Your task to perform on an android device: toggle improve location accuracy Image 0: 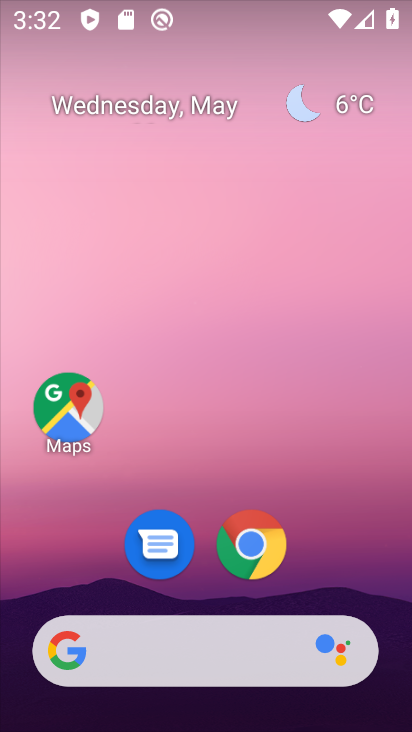
Step 0: drag from (54, 607) to (315, 92)
Your task to perform on an android device: toggle improve location accuracy Image 1: 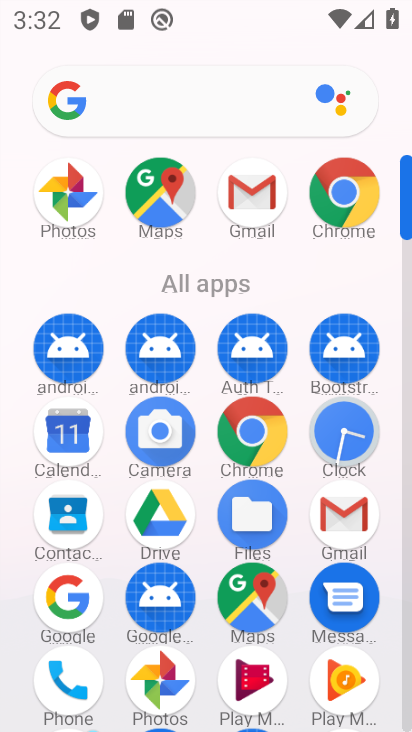
Step 1: drag from (136, 644) to (372, 132)
Your task to perform on an android device: toggle improve location accuracy Image 2: 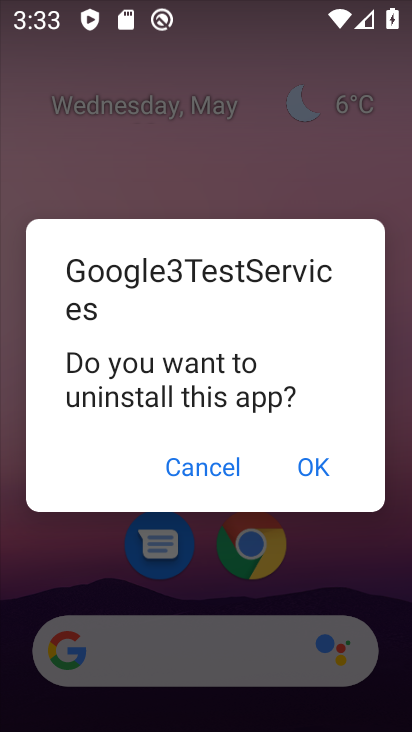
Step 2: click (191, 464)
Your task to perform on an android device: toggle improve location accuracy Image 3: 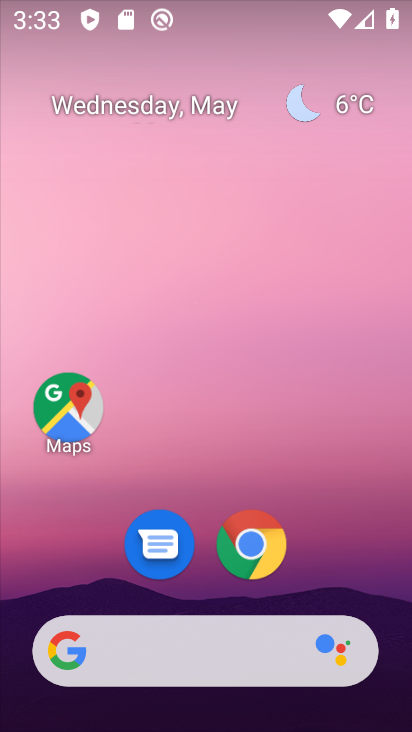
Step 3: drag from (15, 674) to (406, 104)
Your task to perform on an android device: toggle improve location accuracy Image 4: 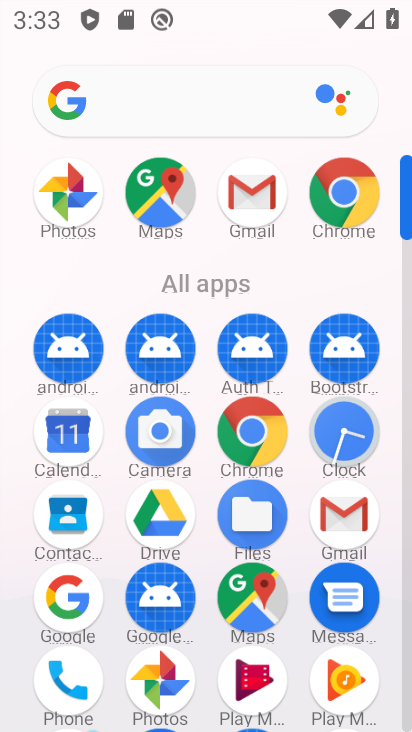
Step 4: drag from (166, 648) to (389, 234)
Your task to perform on an android device: toggle improve location accuracy Image 5: 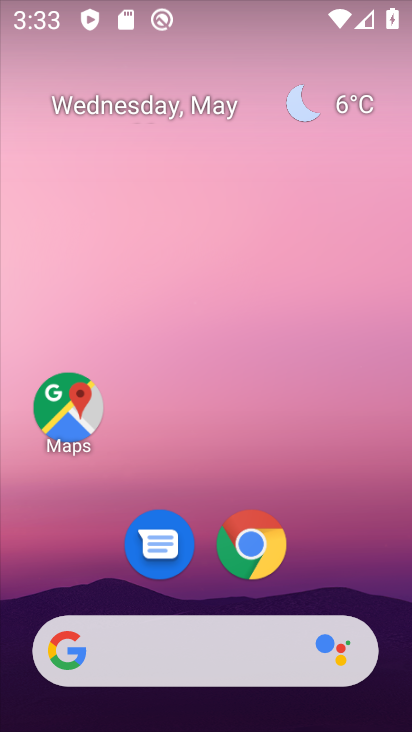
Step 5: drag from (90, 565) to (405, 323)
Your task to perform on an android device: toggle improve location accuracy Image 6: 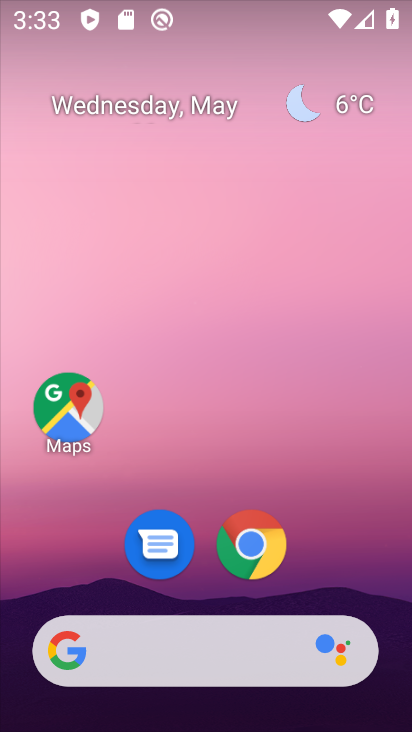
Step 6: drag from (56, 551) to (309, 185)
Your task to perform on an android device: toggle improve location accuracy Image 7: 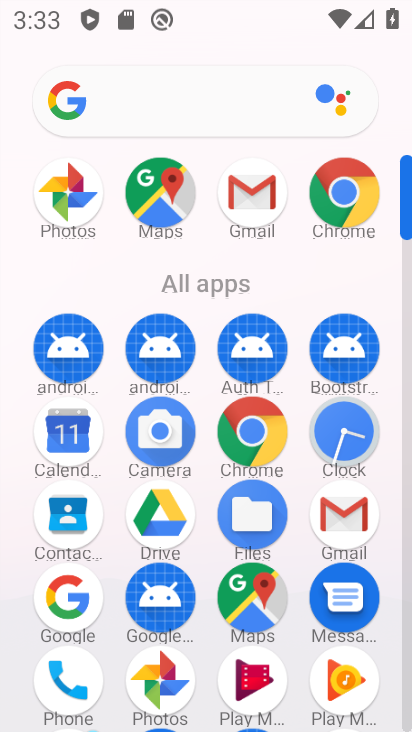
Step 7: drag from (82, 646) to (407, 305)
Your task to perform on an android device: toggle improve location accuracy Image 8: 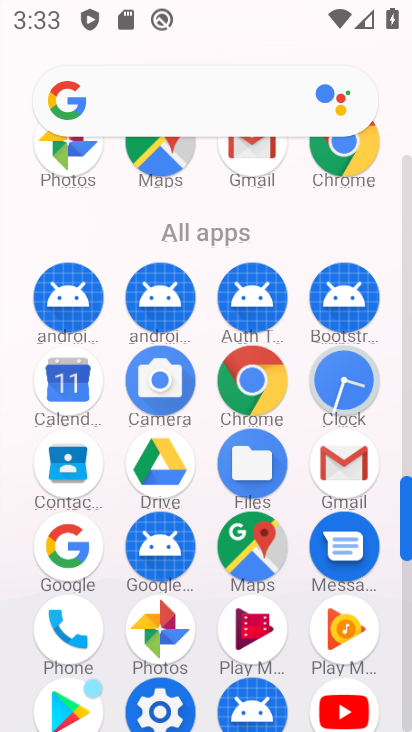
Step 8: click (160, 717)
Your task to perform on an android device: toggle improve location accuracy Image 9: 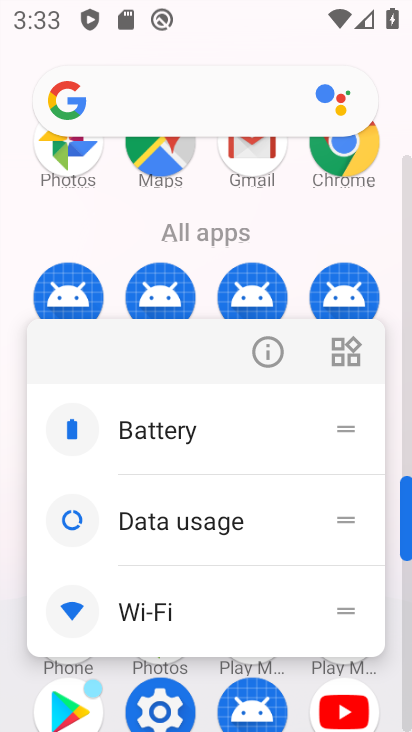
Step 9: click (189, 704)
Your task to perform on an android device: toggle improve location accuracy Image 10: 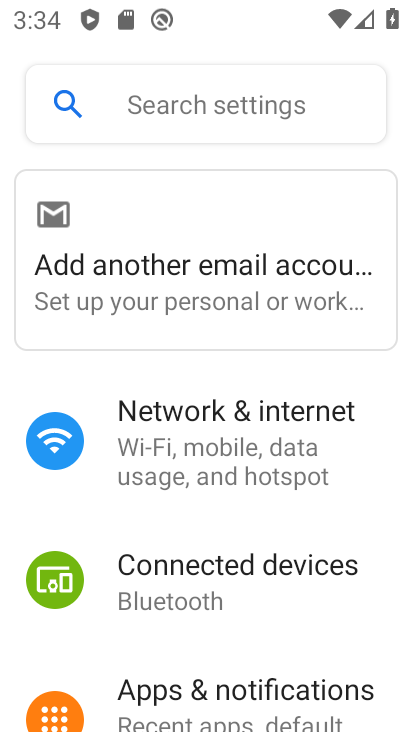
Step 10: drag from (148, 683) to (323, 203)
Your task to perform on an android device: toggle improve location accuracy Image 11: 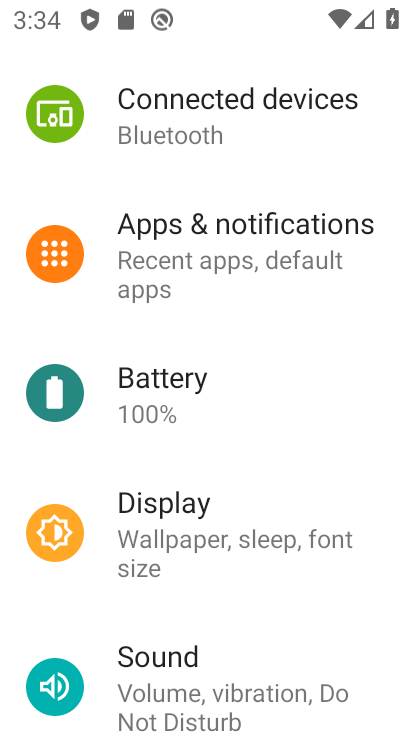
Step 11: drag from (131, 697) to (296, 208)
Your task to perform on an android device: toggle improve location accuracy Image 12: 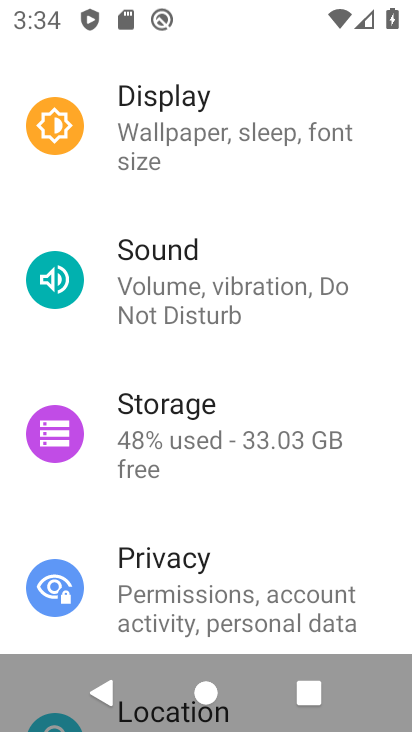
Step 12: drag from (170, 608) to (322, 247)
Your task to perform on an android device: toggle improve location accuracy Image 13: 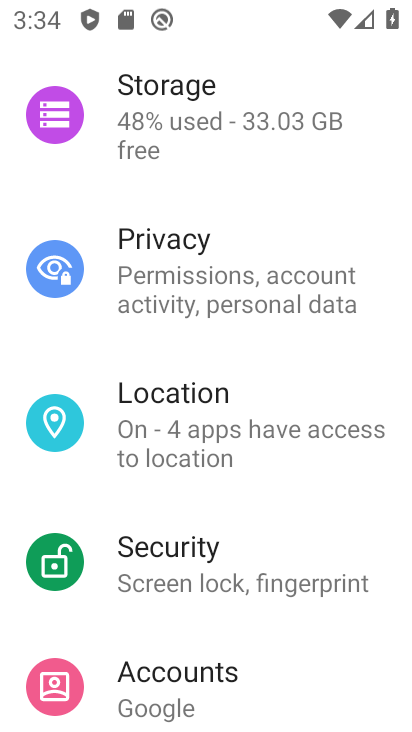
Step 13: click (211, 437)
Your task to perform on an android device: toggle improve location accuracy Image 14: 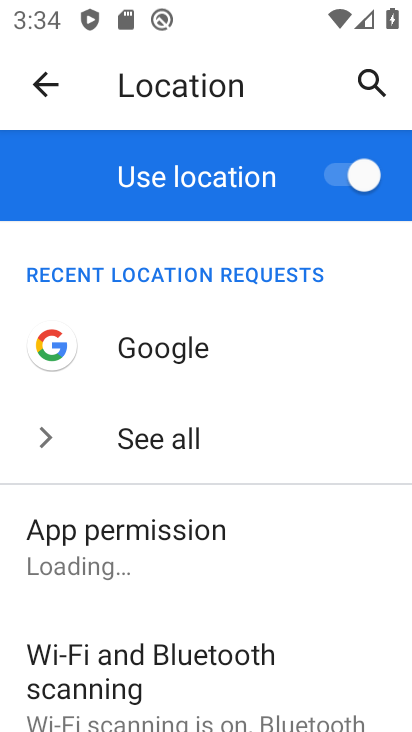
Step 14: drag from (197, 643) to (321, 213)
Your task to perform on an android device: toggle improve location accuracy Image 15: 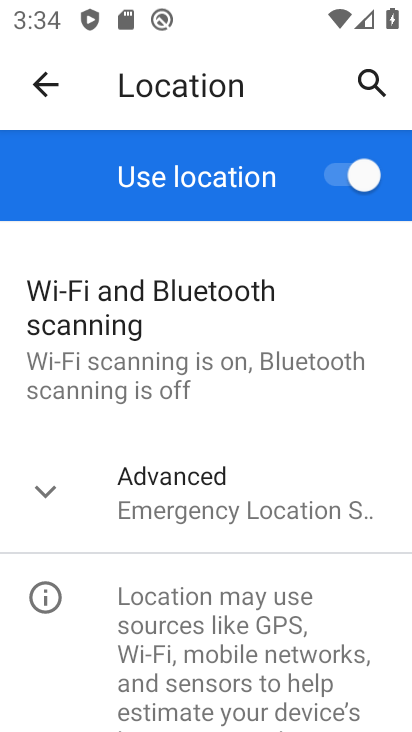
Step 15: click (215, 512)
Your task to perform on an android device: toggle improve location accuracy Image 16: 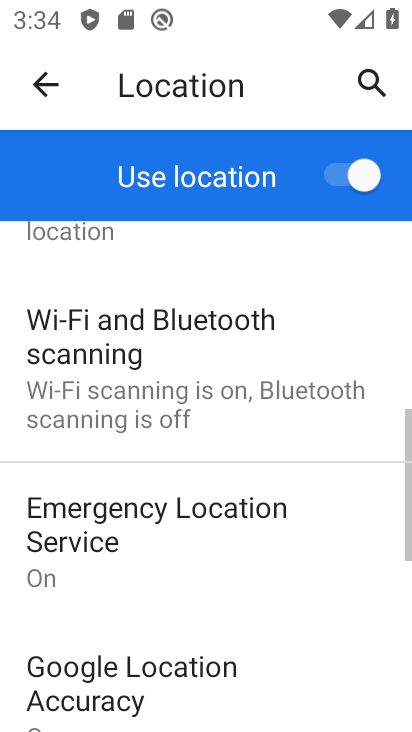
Step 16: drag from (178, 680) to (288, 292)
Your task to perform on an android device: toggle improve location accuracy Image 17: 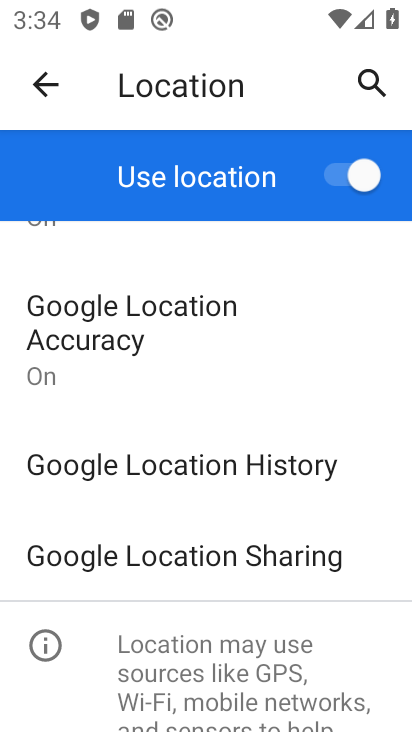
Step 17: click (221, 345)
Your task to perform on an android device: toggle improve location accuracy Image 18: 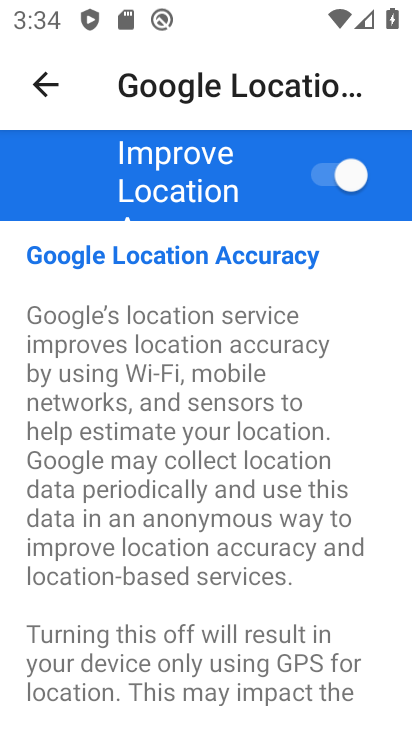
Step 18: click (344, 185)
Your task to perform on an android device: toggle improve location accuracy Image 19: 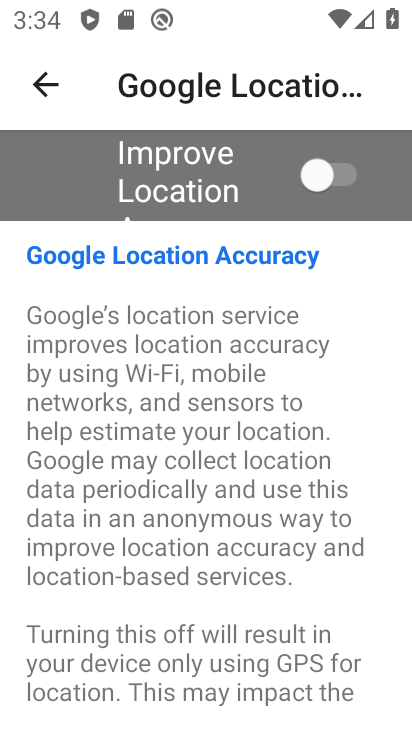
Step 19: task complete